Your task to perform on an android device: Open Google Maps Image 0: 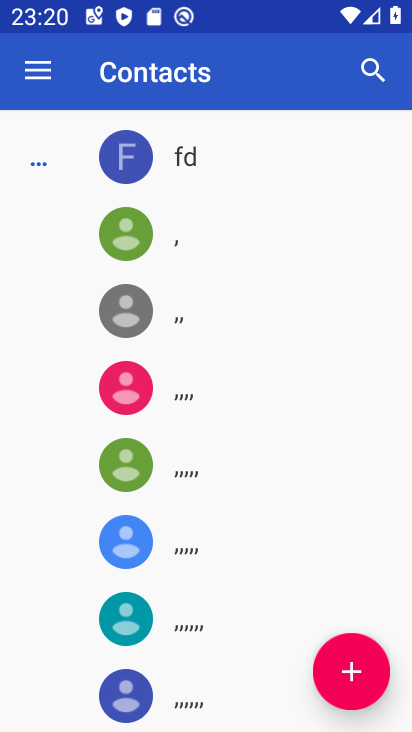
Step 0: press home button
Your task to perform on an android device: Open Google Maps Image 1: 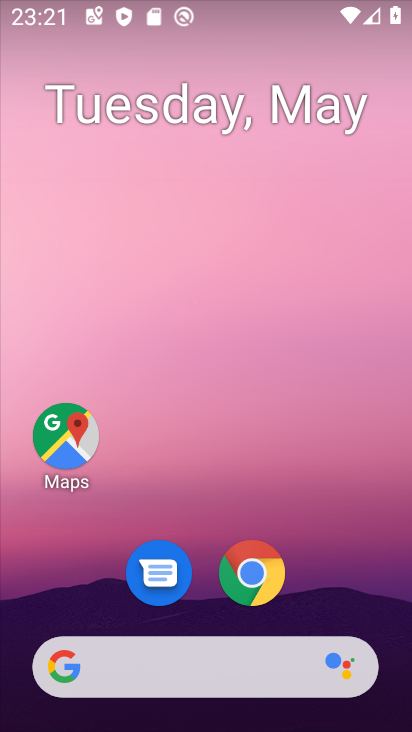
Step 1: click (75, 444)
Your task to perform on an android device: Open Google Maps Image 2: 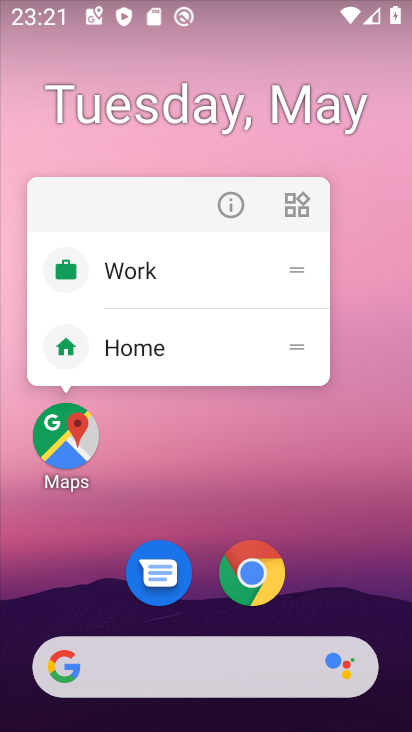
Step 2: click (75, 444)
Your task to perform on an android device: Open Google Maps Image 3: 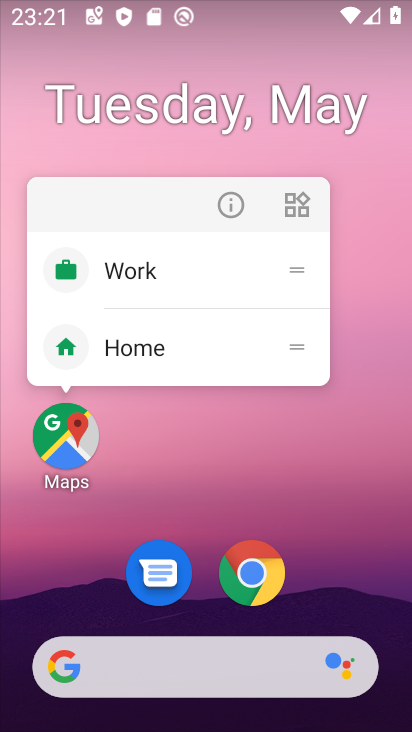
Step 3: click (57, 430)
Your task to perform on an android device: Open Google Maps Image 4: 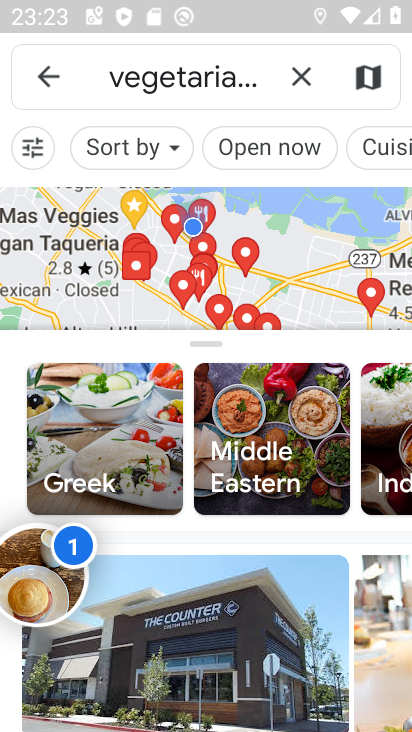
Step 4: task complete